Your task to perform on an android device: open sync settings in chrome Image 0: 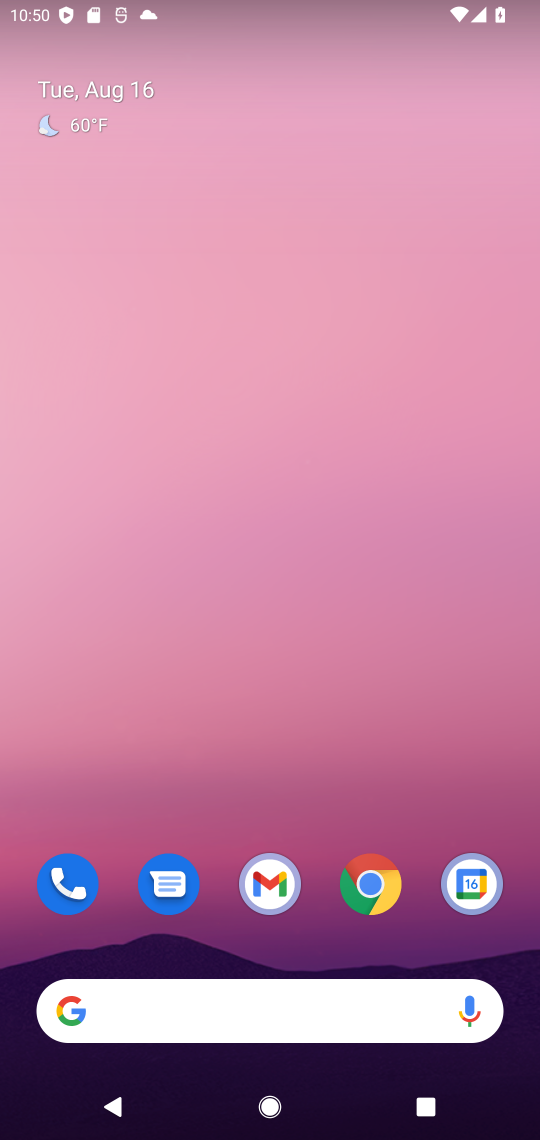
Step 0: click (364, 880)
Your task to perform on an android device: open sync settings in chrome Image 1: 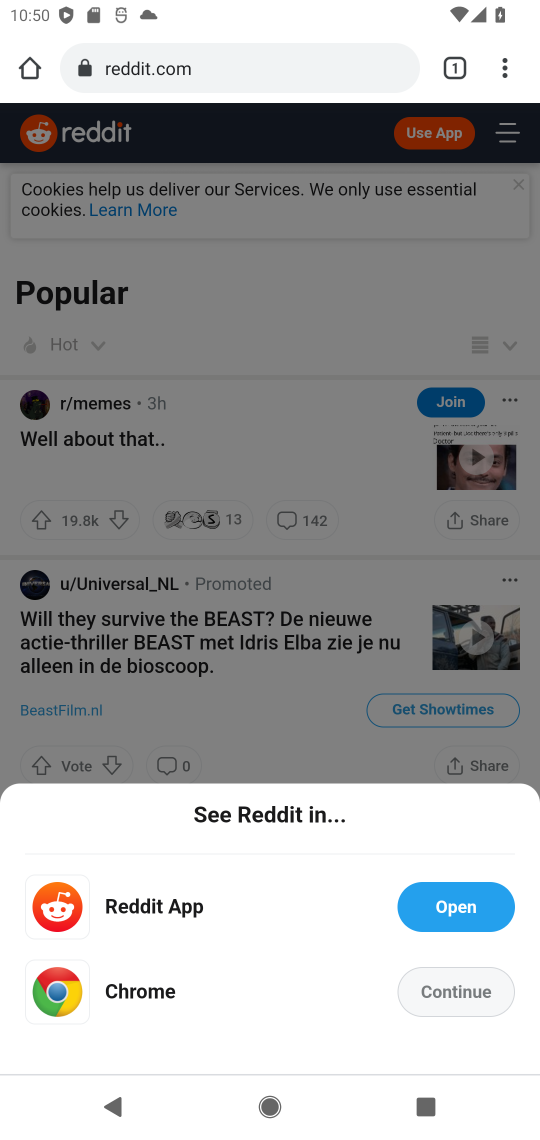
Step 1: click (467, 997)
Your task to perform on an android device: open sync settings in chrome Image 2: 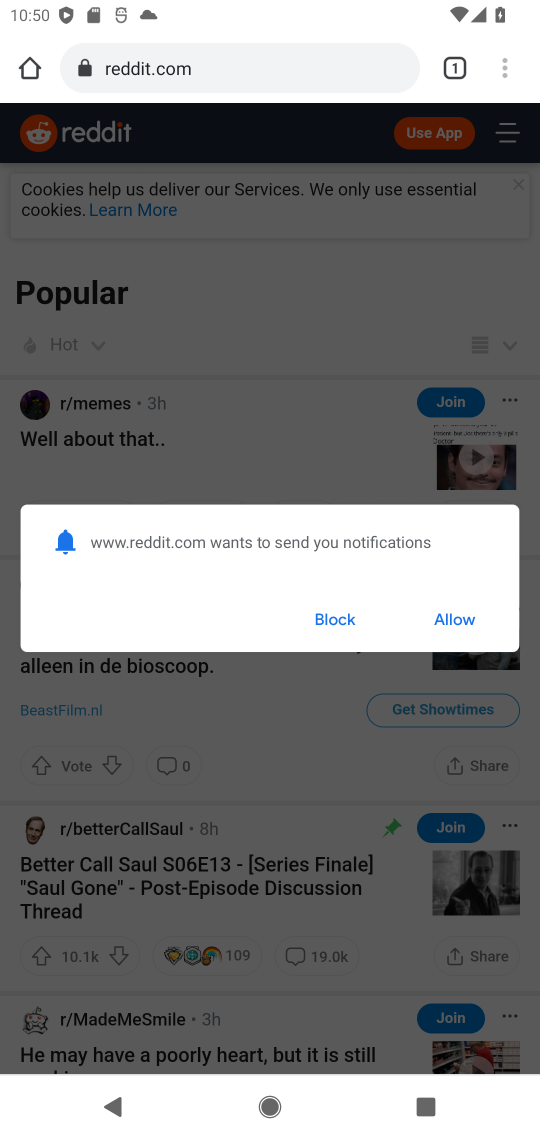
Step 2: click (461, 623)
Your task to perform on an android device: open sync settings in chrome Image 3: 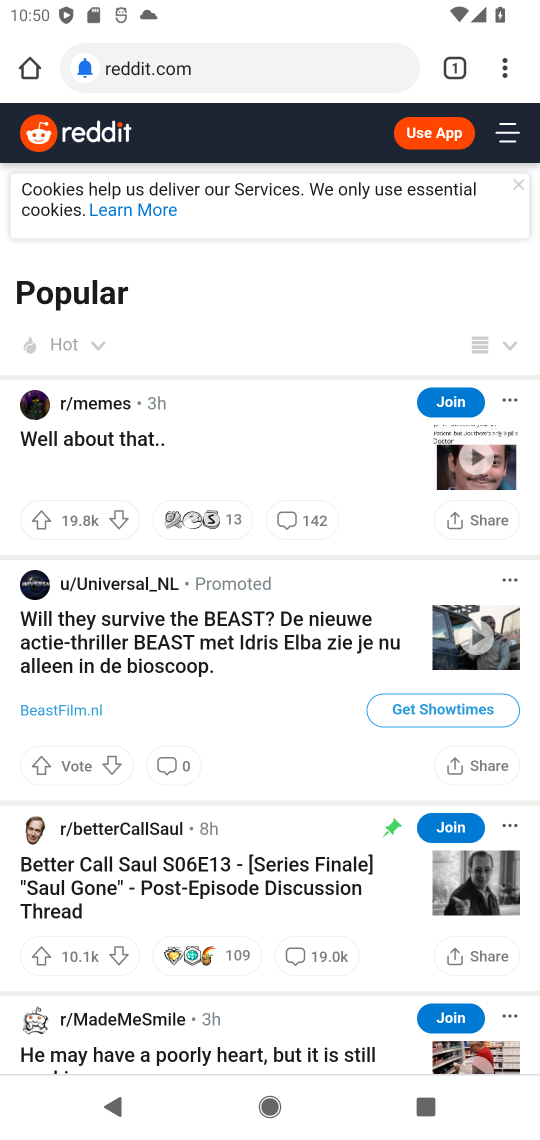
Step 3: click (504, 71)
Your task to perform on an android device: open sync settings in chrome Image 4: 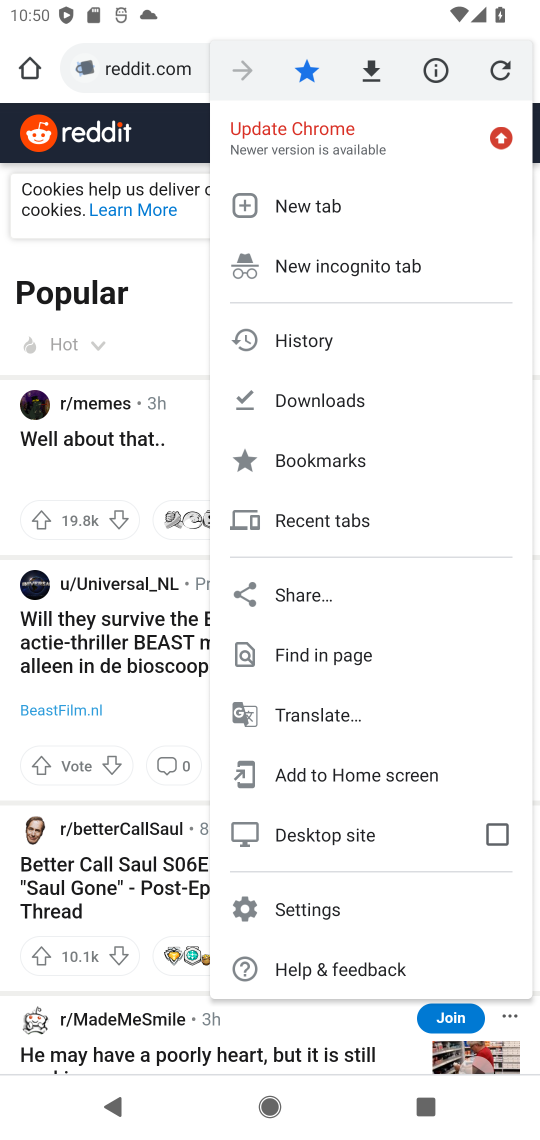
Step 4: click (308, 916)
Your task to perform on an android device: open sync settings in chrome Image 5: 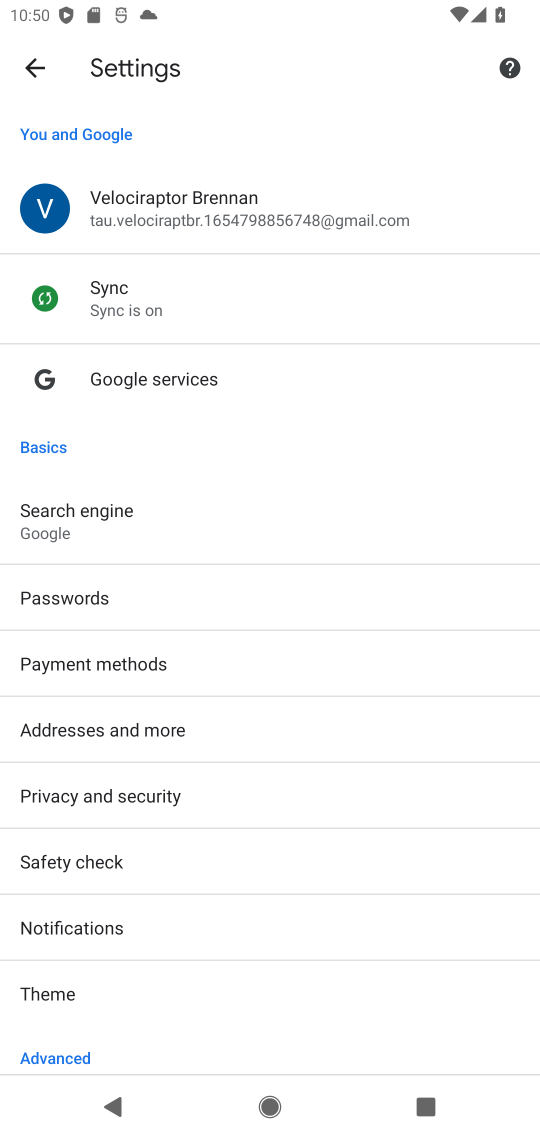
Step 5: click (105, 303)
Your task to perform on an android device: open sync settings in chrome Image 6: 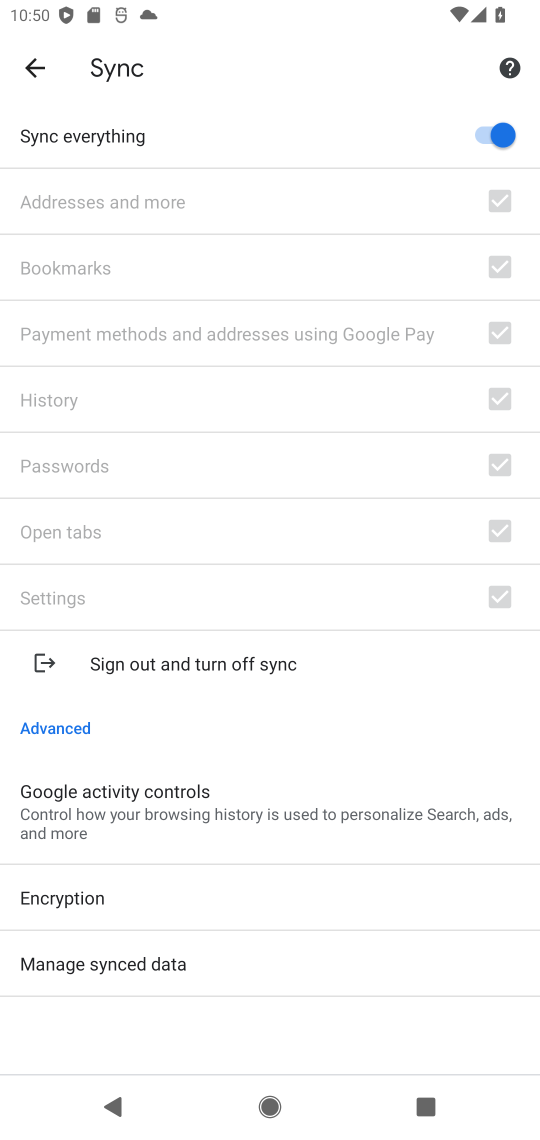
Step 6: task complete